Your task to perform on an android device: show emergency info Image 0: 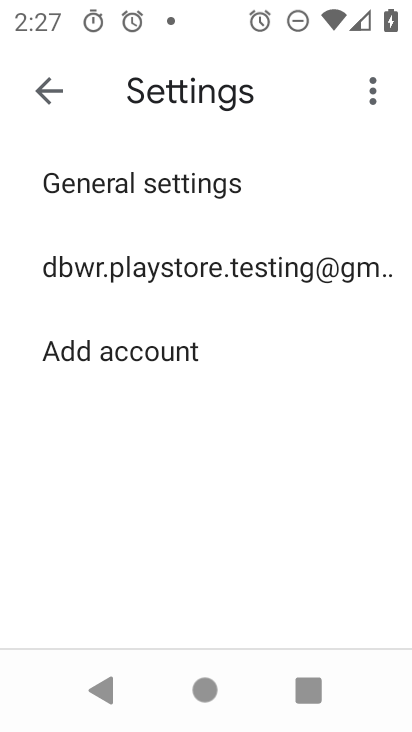
Step 0: press home button
Your task to perform on an android device: show emergency info Image 1: 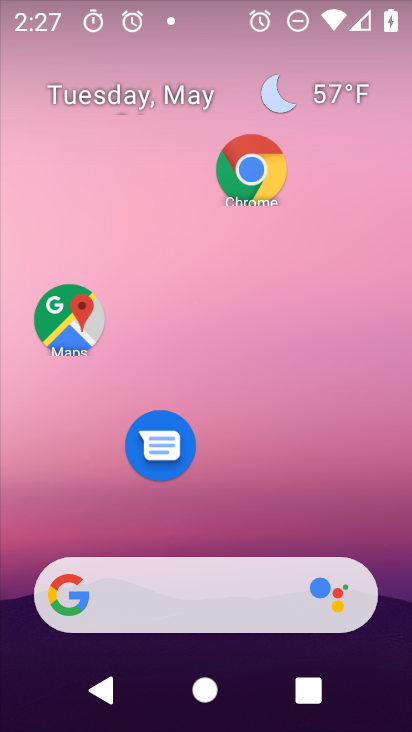
Step 1: drag from (236, 722) to (236, 197)
Your task to perform on an android device: show emergency info Image 2: 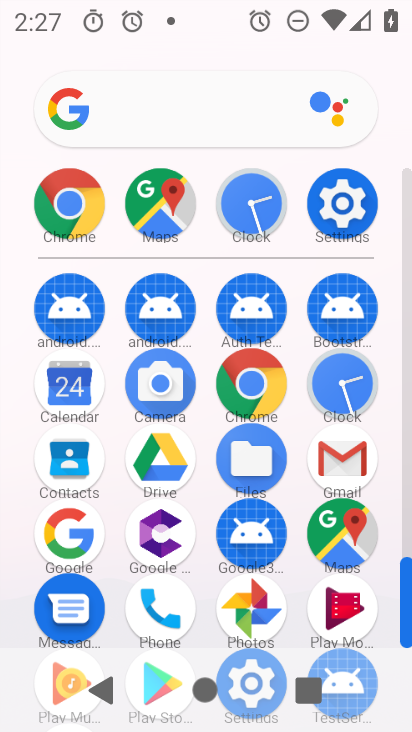
Step 2: click (356, 201)
Your task to perform on an android device: show emergency info Image 3: 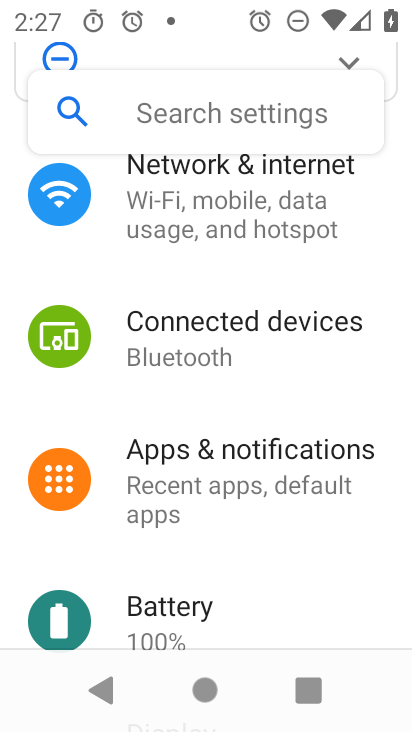
Step 3: drag from (244, 630) to (239, 189)
Your task to perform on an android device: show emergency info Image 4: 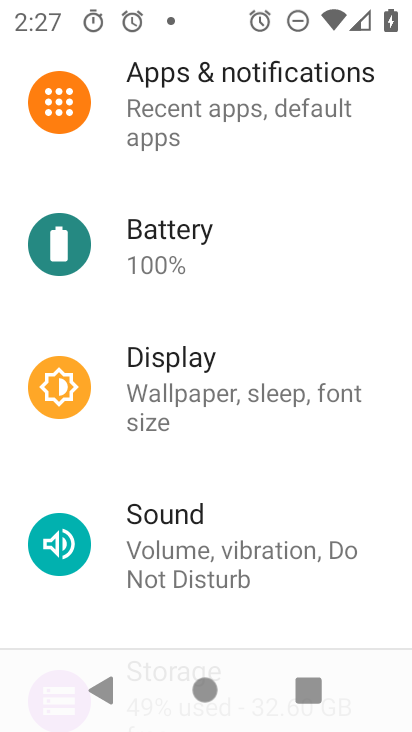
Step 4: drag from (218, 624) to (217, 301)
Your task to perform on an android device: show emergency info Image 5: 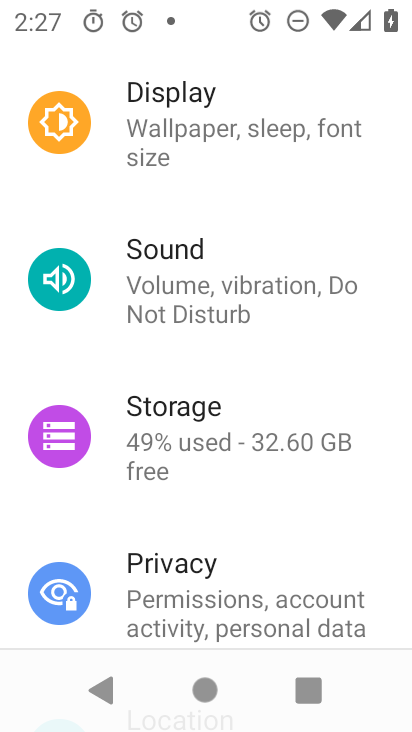
Step 5: drag from (221, 611) to (219, 259)
Your task to perform on an android device: show emergency info Image 6: 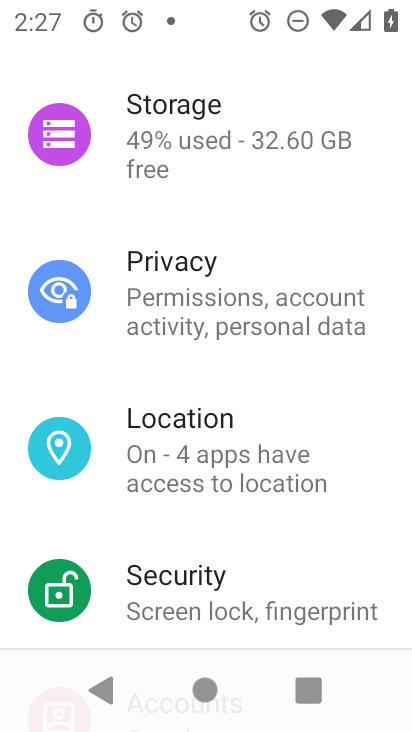
Step 6: drag from (218, 601) to (218, 248)
Your task to perform on an android device: show emergency info Image 7: 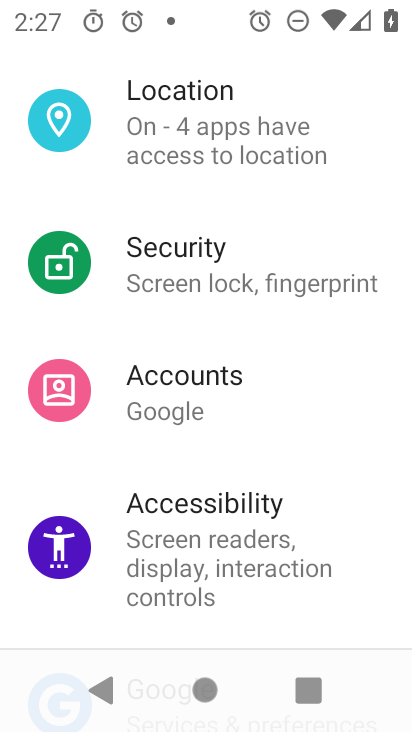
Step 7: drag from (212, 619) to (223, 253)
Your task to perform on an android device: show emergency info Image 8: 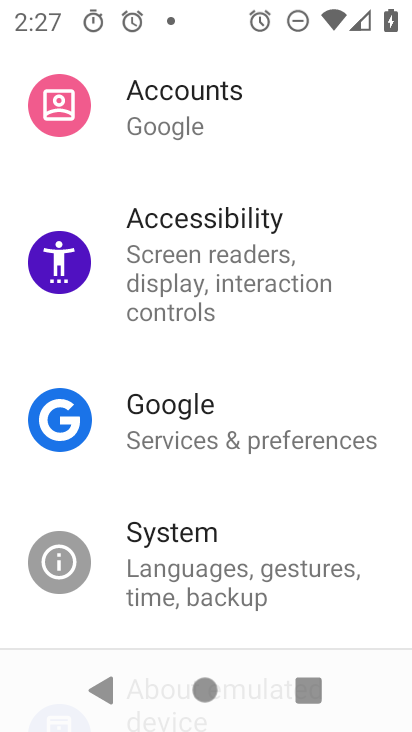
Step 8: drag from (213, 629) to (230, 190)
Your task to perform on an android device: show emergency info Image 9: 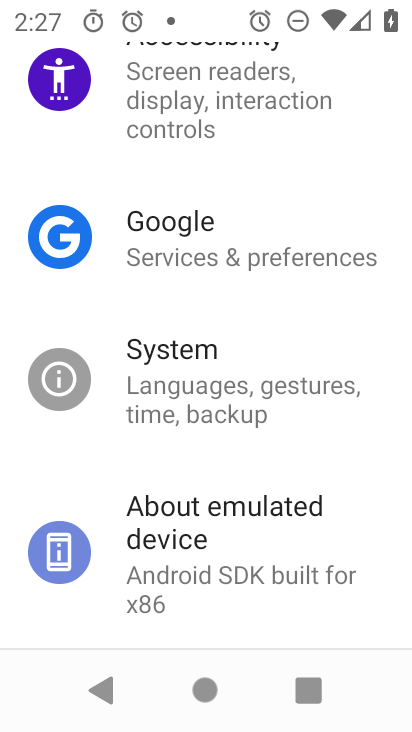
Step 9: click (169, 524)
Your task to perform on an android device: show emergency info Image 10: 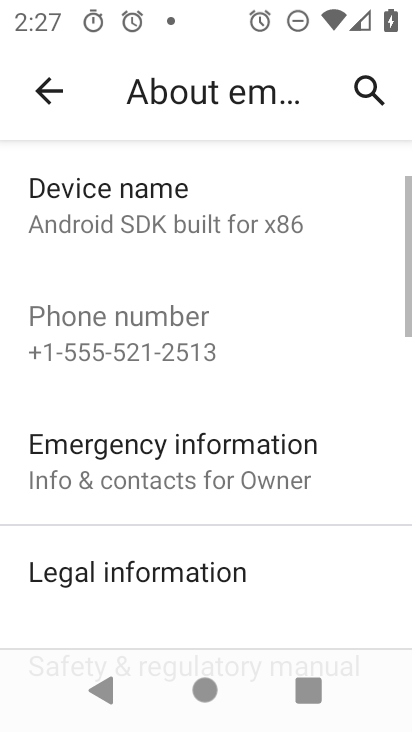
Step 10: click (162, 467)
Your task to perform on an android device: show emergency info Image 11: 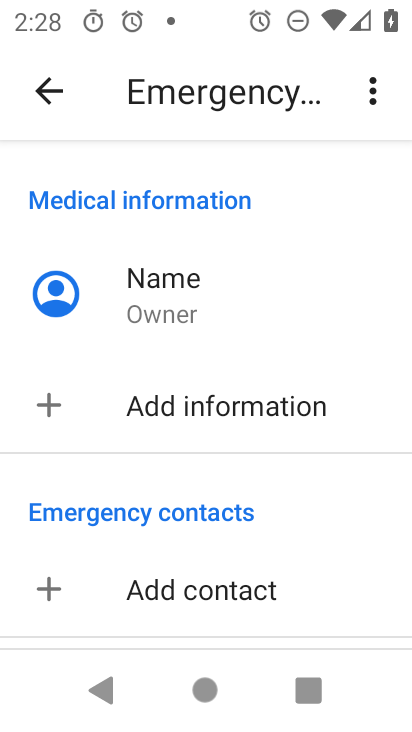
Step 11: task complete